Your task to perform on an android device: stop showing notifications on the lock screen Image 0: 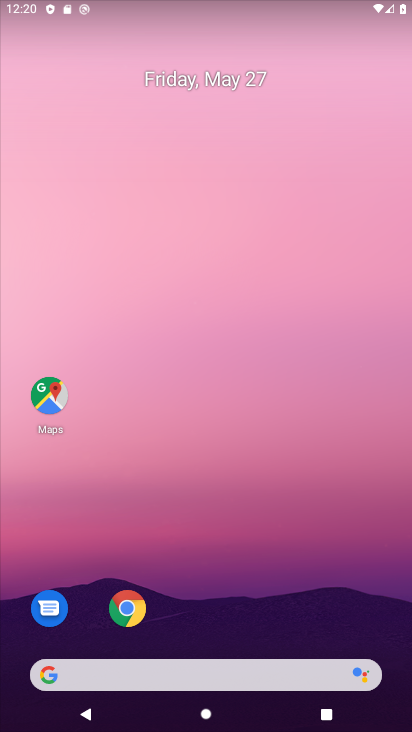
Step 0: drag from (206, 545) to (198, 54)
Your task to perform on an android device: stop showing notifications on the lock screen Image 1: 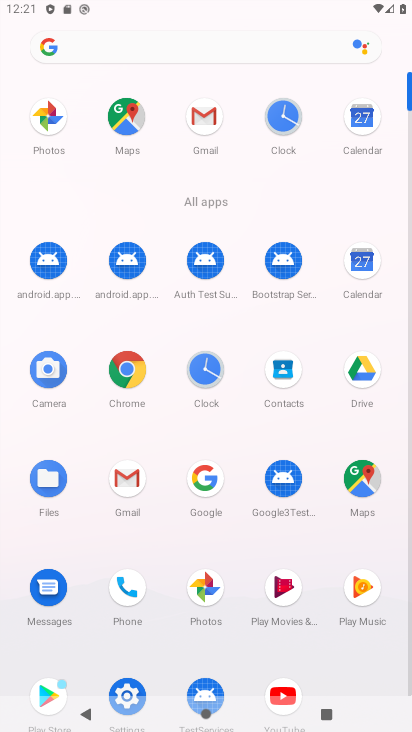
Step 1: click (121, 692)
Your task to perform on an android device: stop showing notifications on the lock screen Image 2: 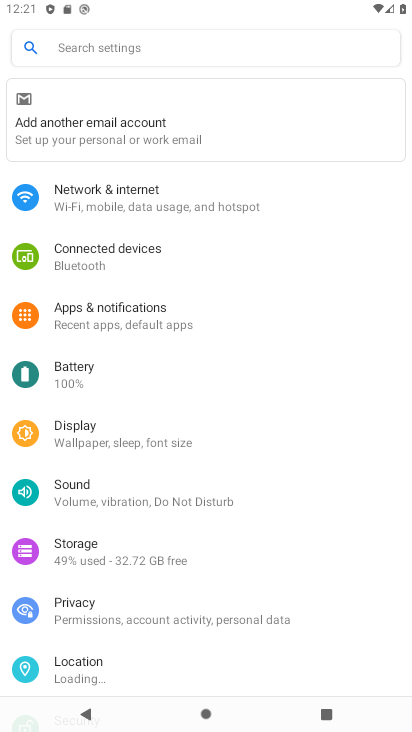
Step 2: click (127, 326)
Your task to perform on an android device: stop showing notifications on the lock screen Image 3: 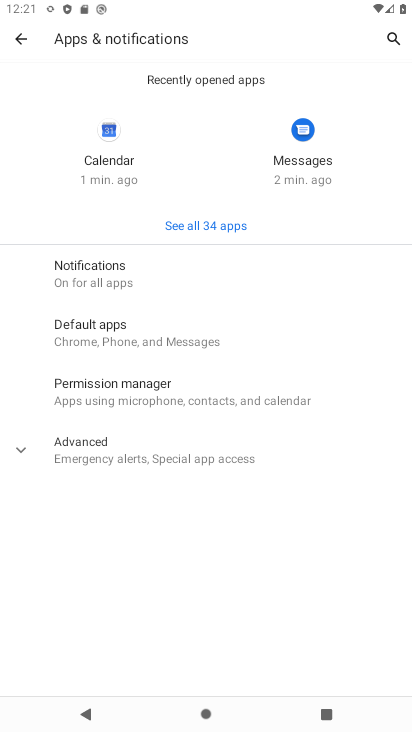
Step 3: click (94, 275)
Your task to perform on an android device: stop showing notifications on the lock screen Image 4: 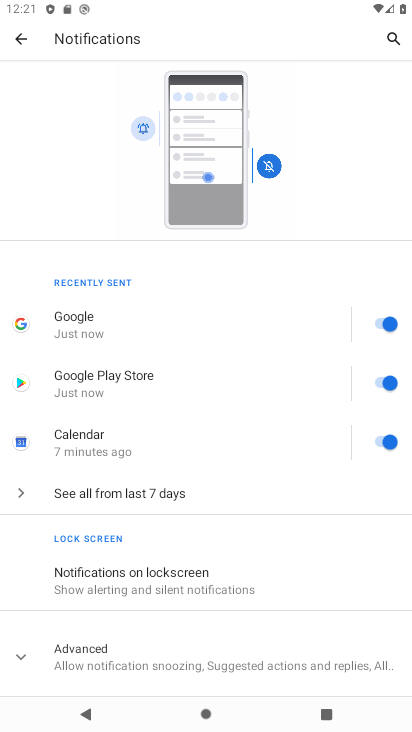
Step 4: click (191, 598)
Your task to perform on an android device: stop showing notifications on the lock screen Image 5: 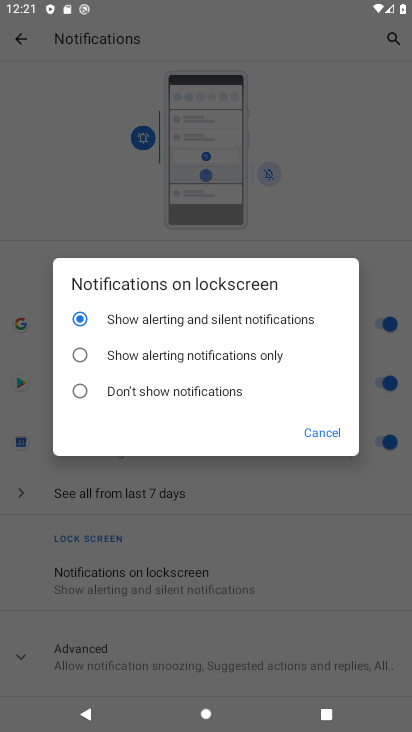
Step 5: click (89, 393)
Your task to perform on an android device: stop showing notifications on the lock screen Image 6: 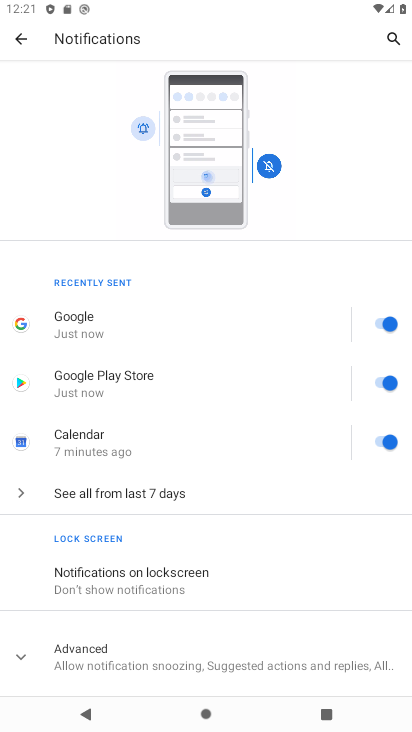
Step 6: task complete